Your task to perform on an android device: turn on the 12-hour format for clock Image 0: 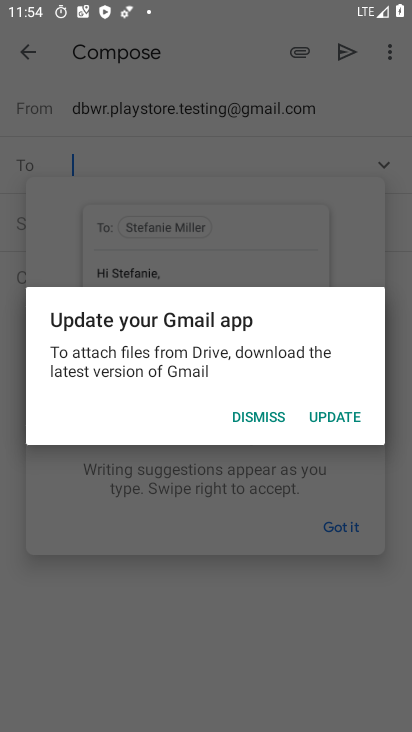
Step 0: press home button
Your task to perform on an android device: turn on the 12-hour format for clock Image 1: 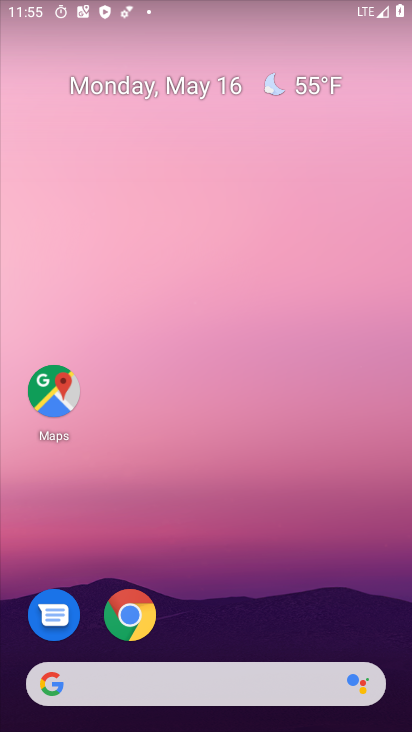
Step 1: drag from (288, 594) to (322, 60)
Your task to perform on an android device: turn on the 12-hour format for clock Image 2: 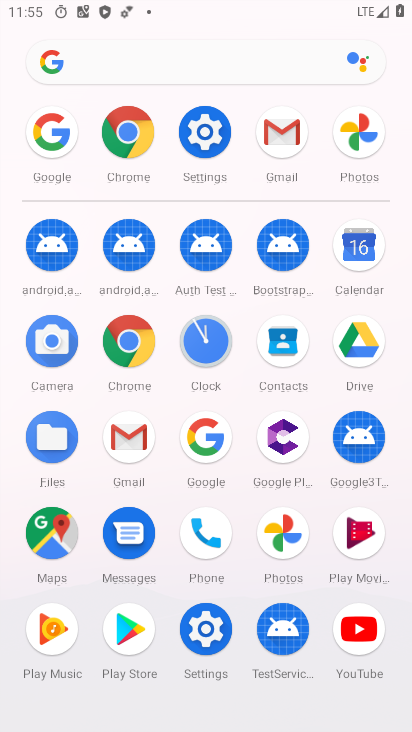
Step 2: click (201, 340)
Your task to perform on an android device: turn on the 12-hour format for clock Image 3: 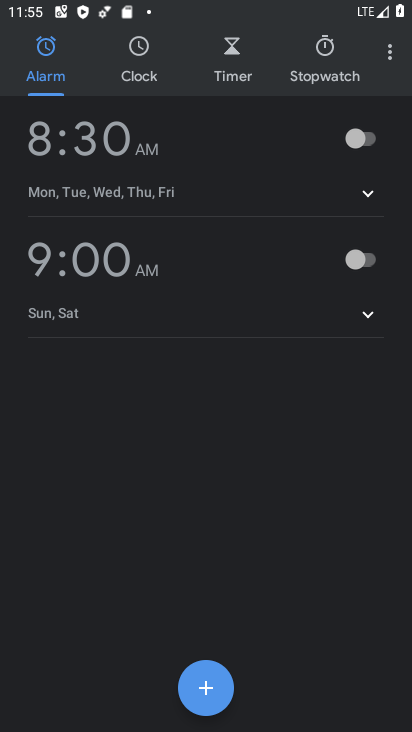
Step 3: click (391, 54)
Your task to perform on an android device: turn on the 12-hour format for clock Image 4: 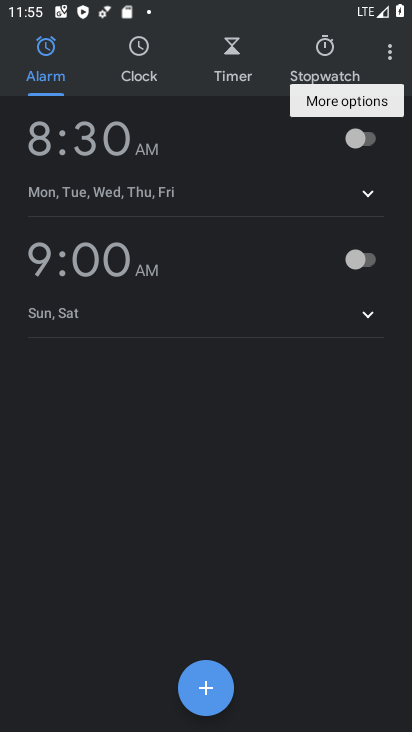
Step 4: click (394, 56)
Your task to perform on an android device: turn on the 12-hour format for clock Image 5: 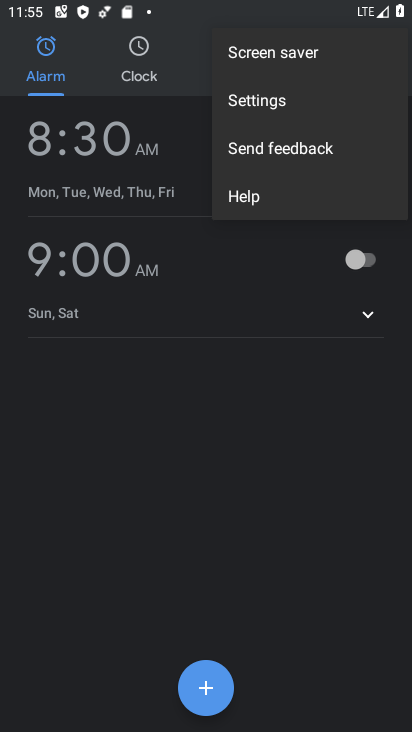
Step 5: click (268, 93)
Your task to perform on an android device: turn on the 12-hour format for clock Image 6: 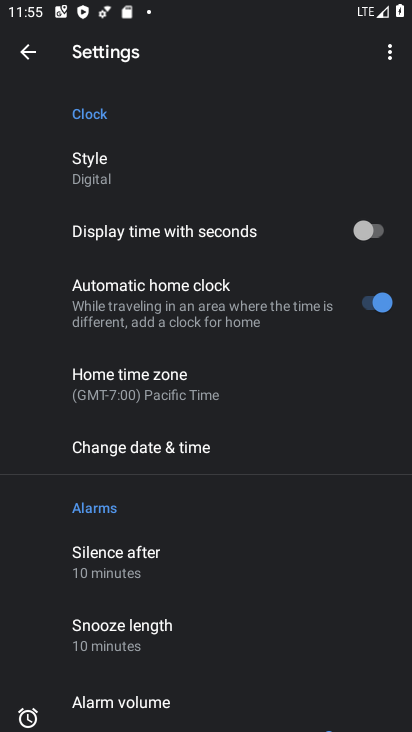
Step 6: drag from (283, 600) to (307, 143)
Your task to perform on an android device: turn on the 12-hour format for clock Image 7: 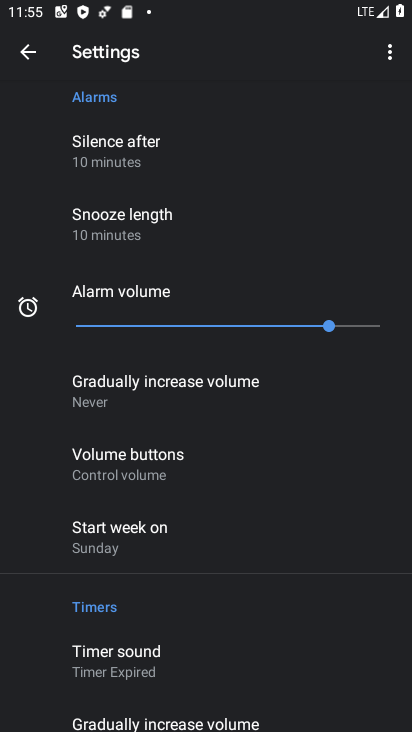
Step 7: drag from (251, 135) to (231, 473)
Your task to perform on an android device: turn on the 12-hour format for clock Image 8: 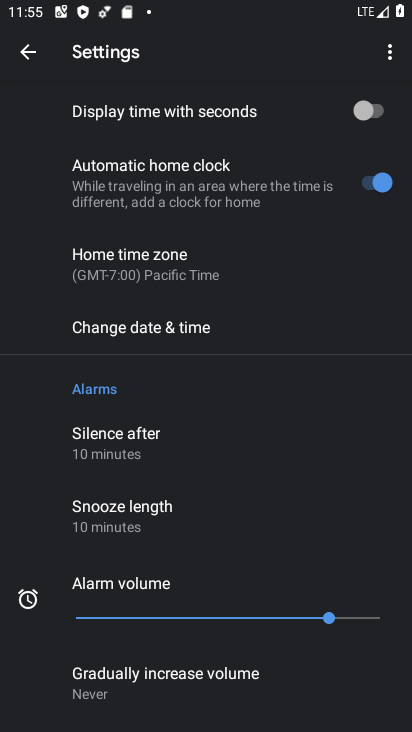
Step 8: click (198, 319)
Your task to perform on an android device: turn on the 12-hour format for clock Image 9: 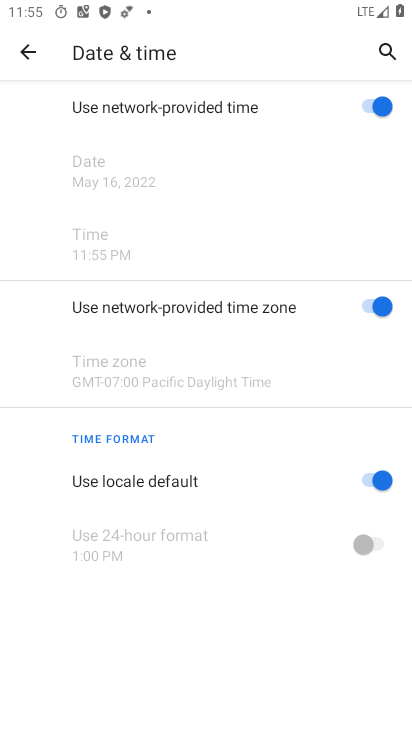
Step 9: task complete